Your task to perform on an android device: Open Google Chrome and open the bookmarks view Image 0: 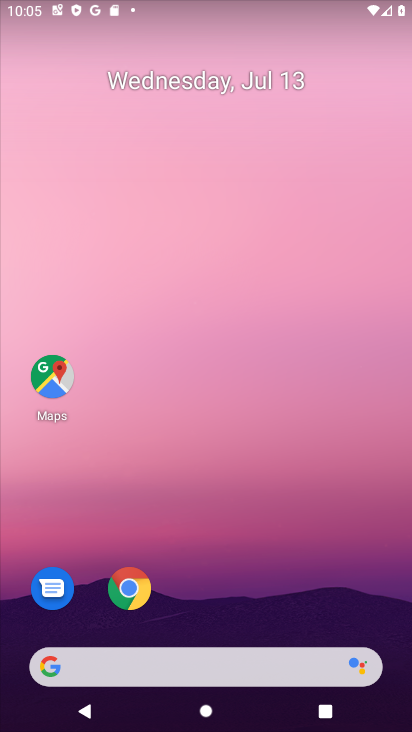
Step 0: click (130, 584)
Your task to perform on an android device: Open Google Chrome and open the bookmarks view Image 1: 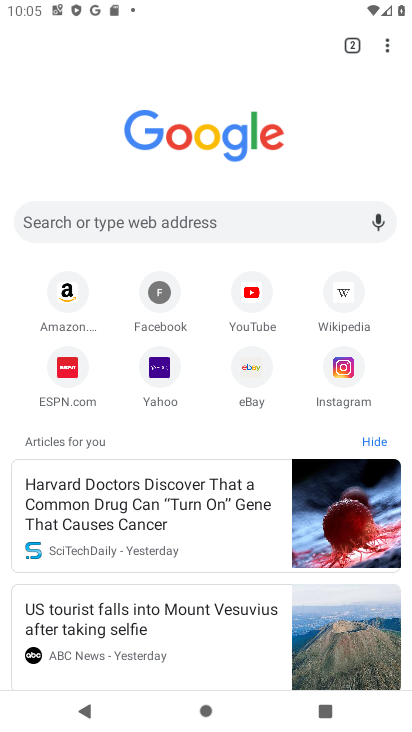
Step 1: click (381, 48)
Your task to perform on an android device: Open Google Chrome and open the bookmarks view Image 2: 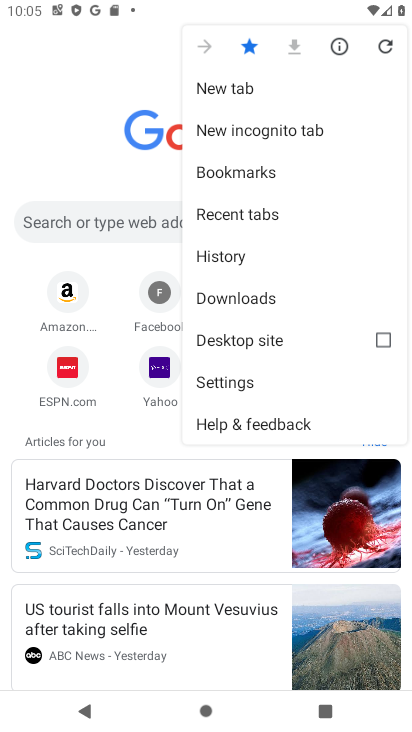
Step 2: click (252, 174)
Your task to perform on an android device: Open Google Chrome and open the bookmarks view Image 3: 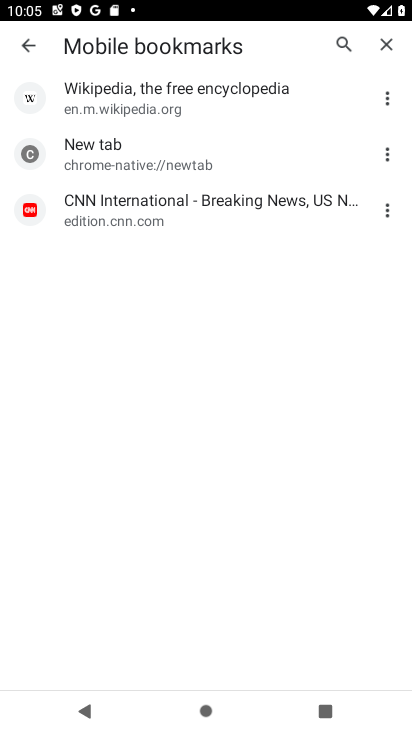
Step 3: click (127, 204)
Your task to perform on an android device: Open Google Chrome and open the bookmarks view Image 4: 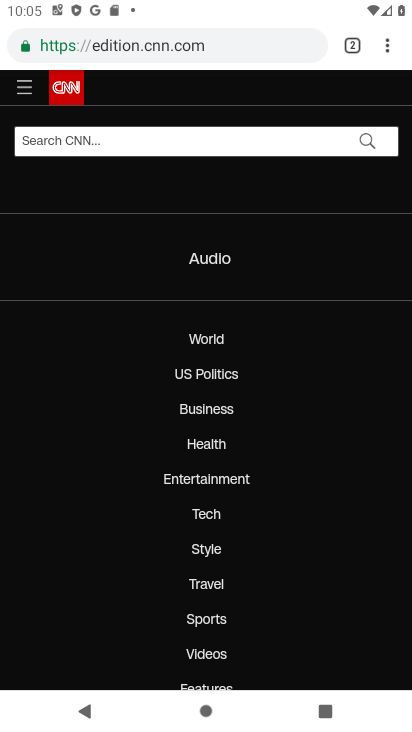
Step 4: task complete